Your task to perform on an android device: toggle show notifications on the lock screen Image 0: 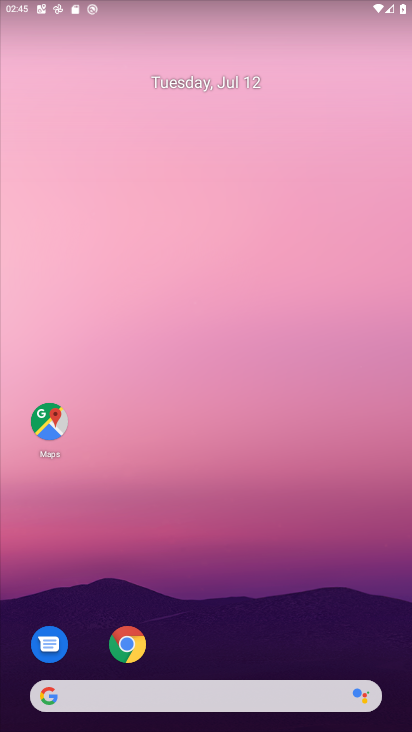
Step 0: drag from (215, 668) to (237, 75)
Your task to perform on an android device: toggle show notifications on the lock screen Image 1: 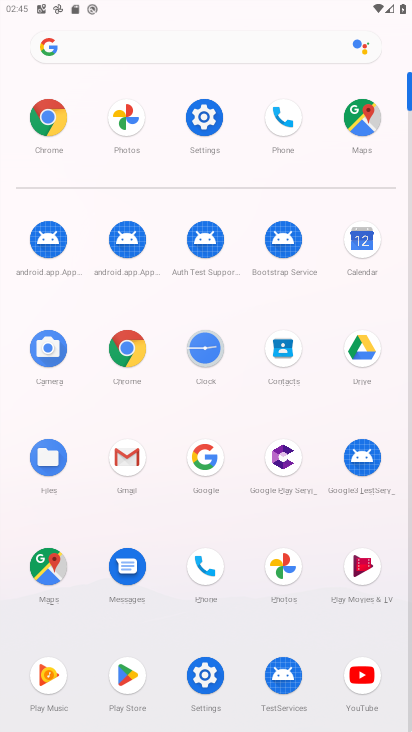
Step 1: click (211, 657)
Your task to perform on an android device: toggle show notifications on the lock screen Image 2: 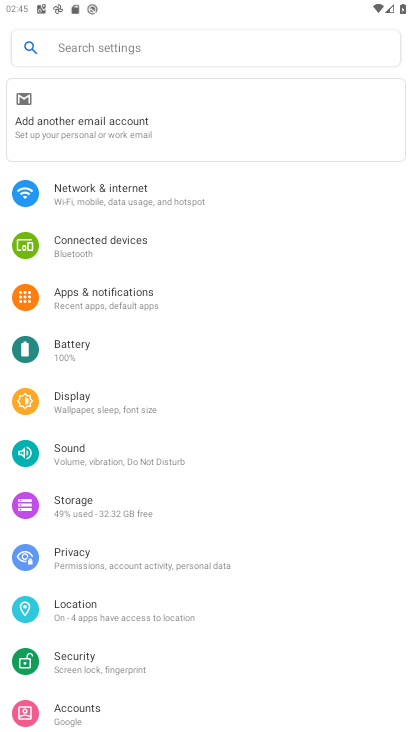
Step 2: click (141, 305)
Your task to perform on an android device: toggle show notifications on the lock screen Image 3: 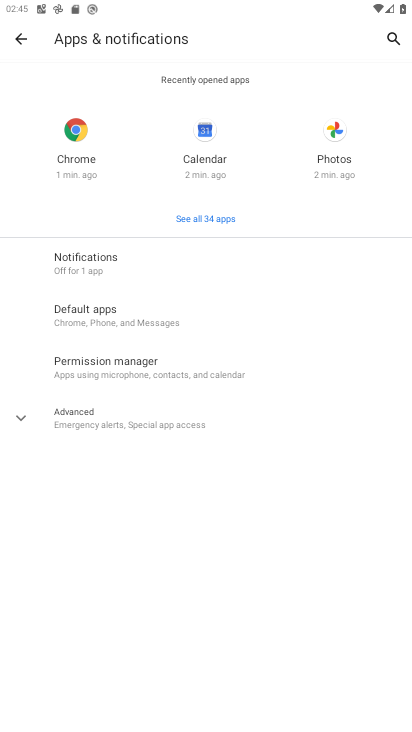
Step 3: click (115, 276)
Your task to perform on an android device: toggle show notifications on the lock screen Image 4: 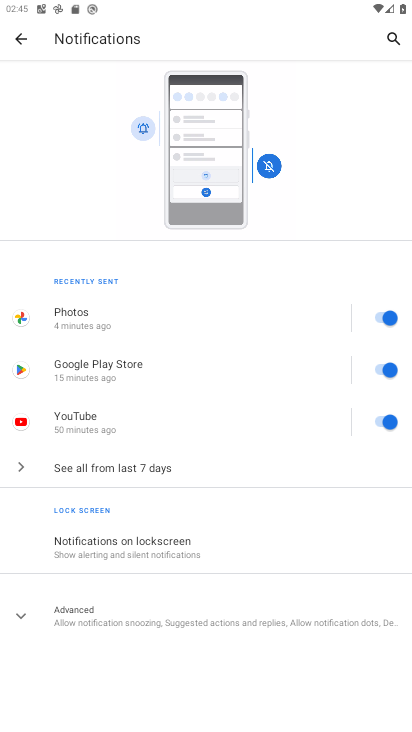
Step 4: click (147, 551)
Your task to perform on an android device: toggle show notifications on the lock screen Image 5: 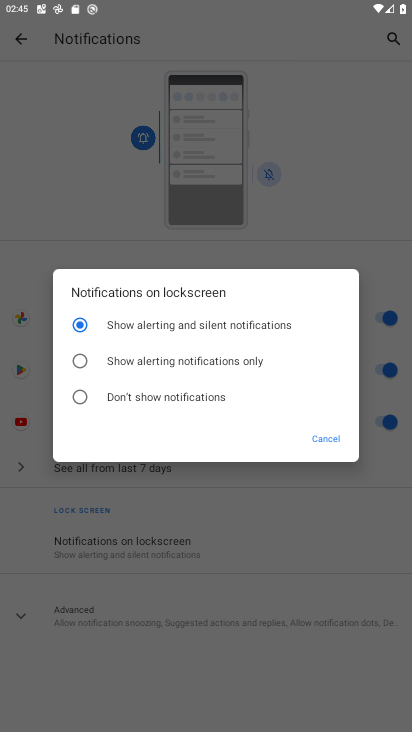
Step 5: click (128, 355)
Your task to perform on an android device: toggle show notifications on the lock screen Image 6: 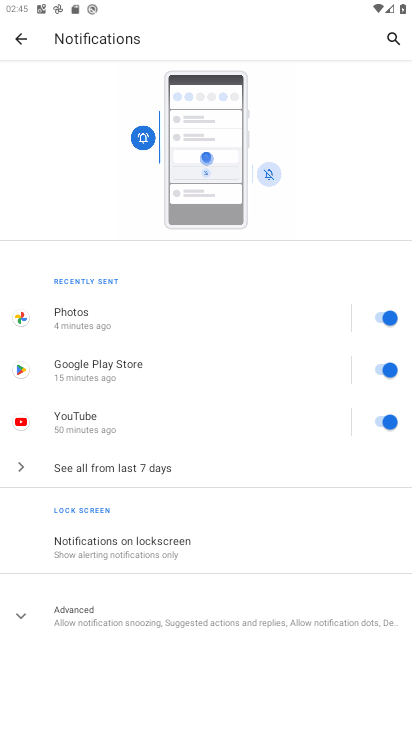
Step 6: task complete